Your task to perform on an android device: Go to accessibility settings Image 0: 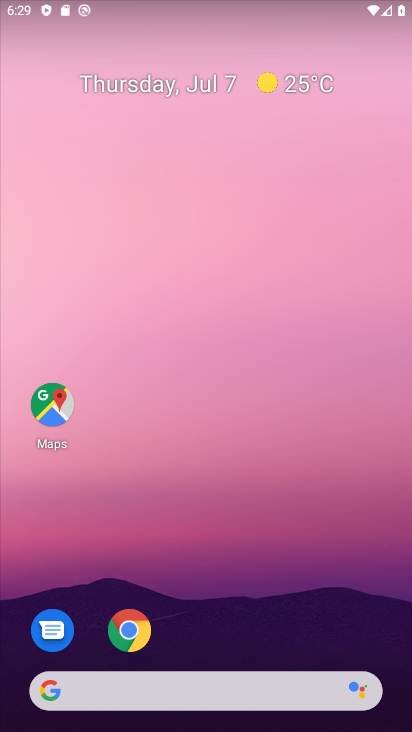
Step 0: drag from (252, 545) to (144, 131)
Your task to perform on an android device: Go to accessibility settings Image 1: 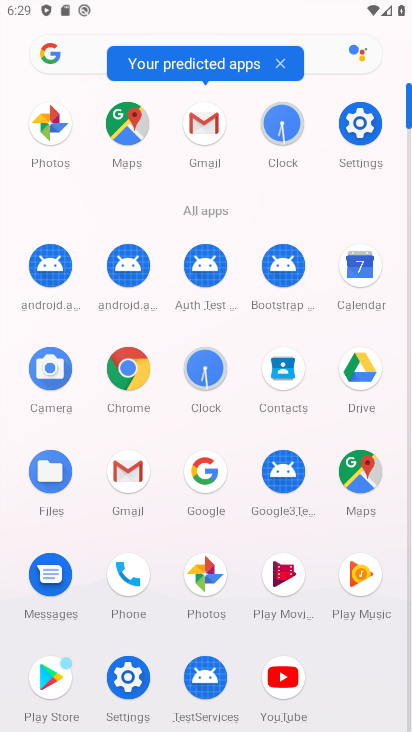
Step 1: click (358, 123)
Your task to perform on an android device: Go to accessibility settings Image 2: 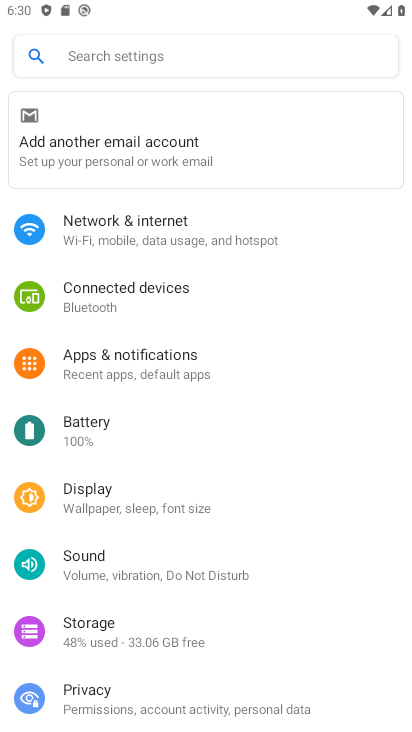
Step 2: drag from (226, 615) to (100, 156)
Your task to perform on an android device: Go to accessibility settings Image 3: 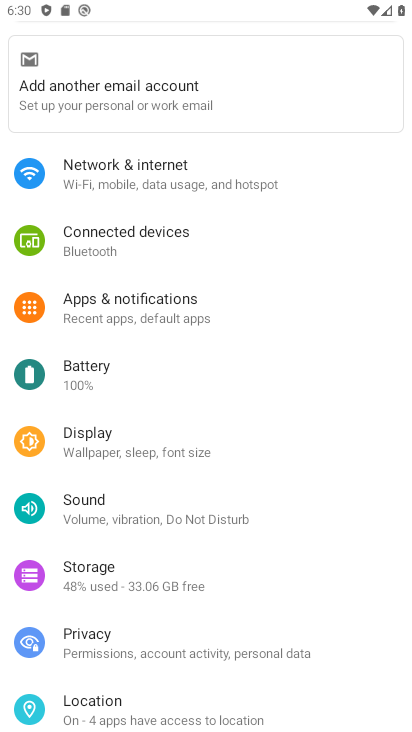
Step 3: drag from (272, 568) to (259, 280)
Your task to perform on an android device: Go to accessibility settings Image 4: 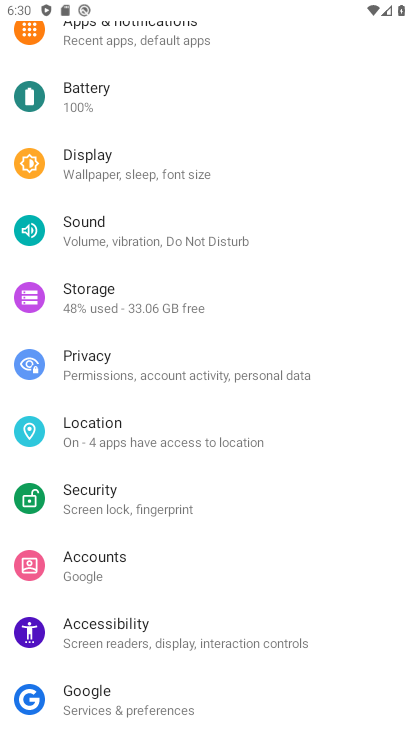
Step 4: click (106, 627)
Your task to perform on an android device: Go to accessibility settings Image 5: 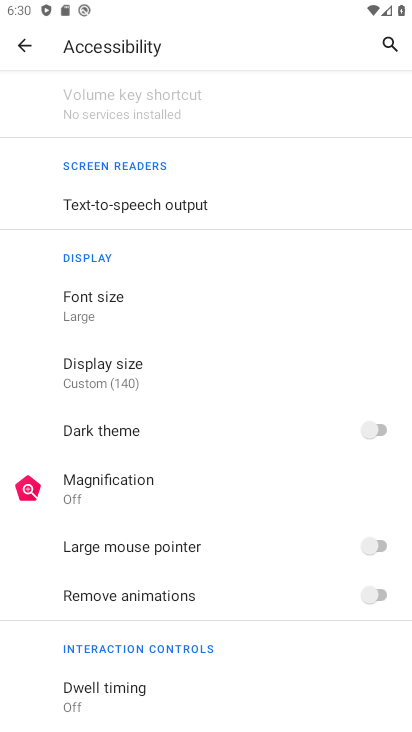
Step 5: task complete